Your task to perform on an android device: Search for sushi restaurants on Maps Image 0: 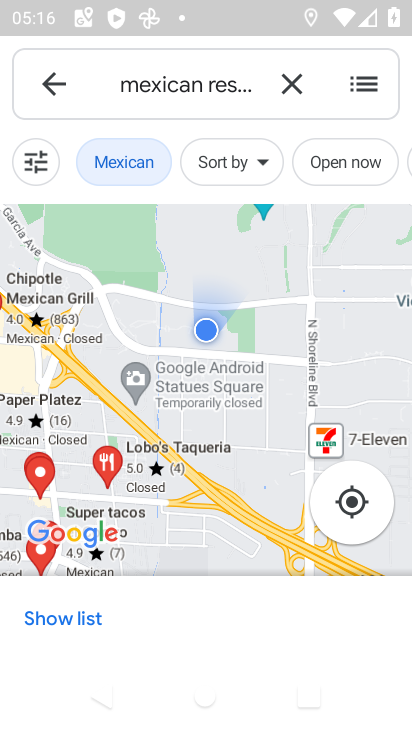
Step 0: click (284, 94)
Your task to perform on an android device: Search for sushi restaurants on Maps Image 1: 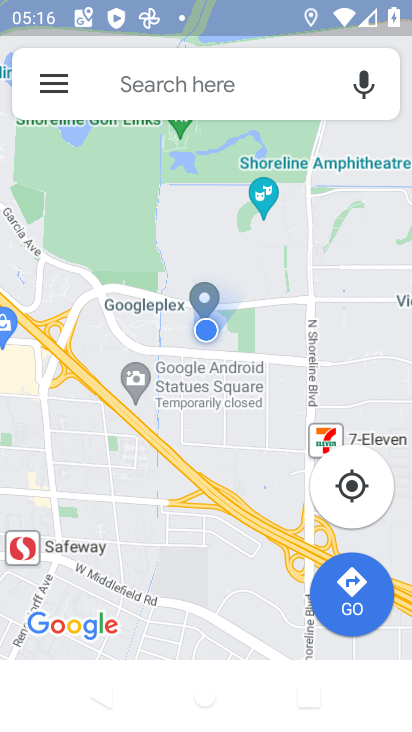
Step 1: click (284, 94)
Your task to perform on an android device: Search for sushi restaurants on Maps Image 2: 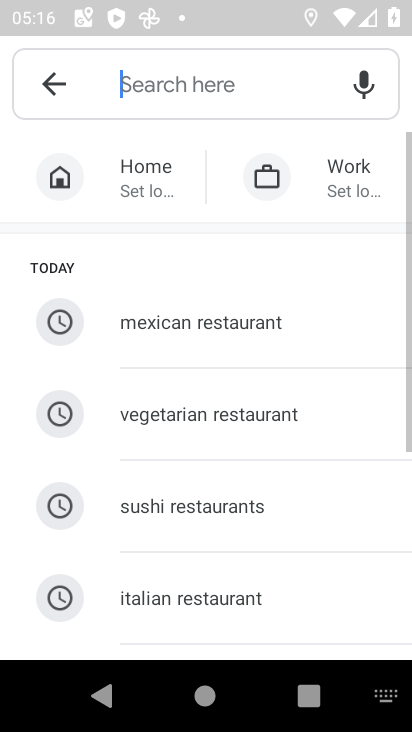
Step 2: click (257, 521)
Your task to perform on an android device: Search for sushi restaurants on Maps Image 3: 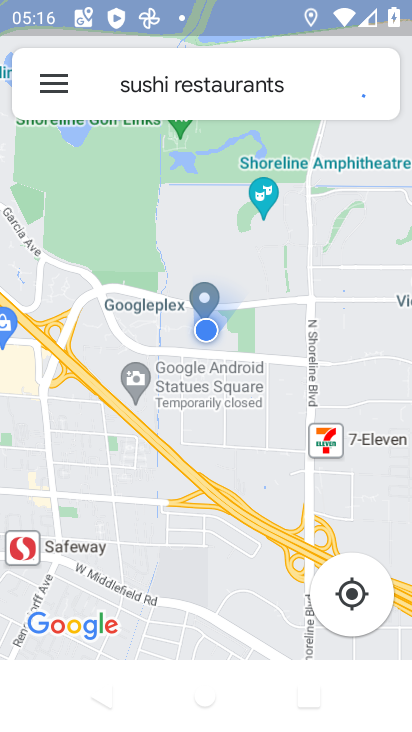
Step 3: task complete